Your task to perform on an android device: Go to internet settings Image 0: 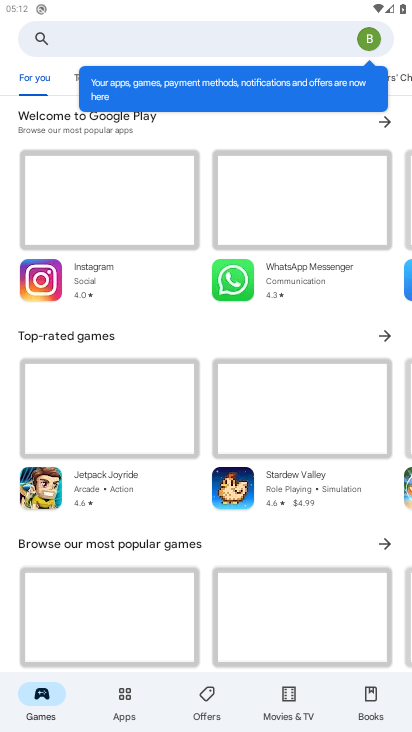
Step 0: press home button
Your task to perform on an android device: Go to internet settings Image 1: 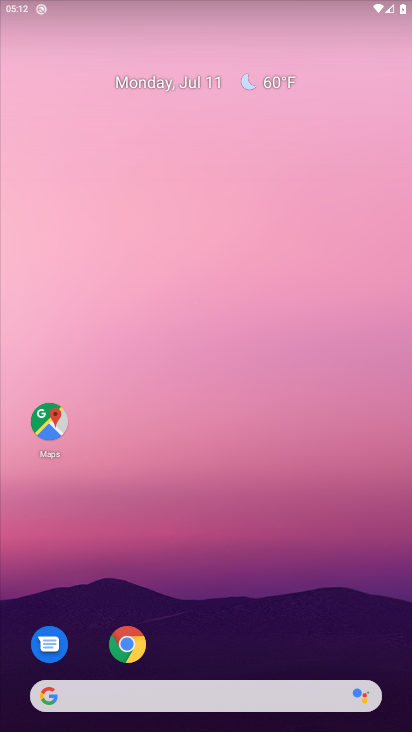
Step 1: drag from (183, 685) to (170, 229)
Your task to perform on an android device: Go to internet settings Image 2: 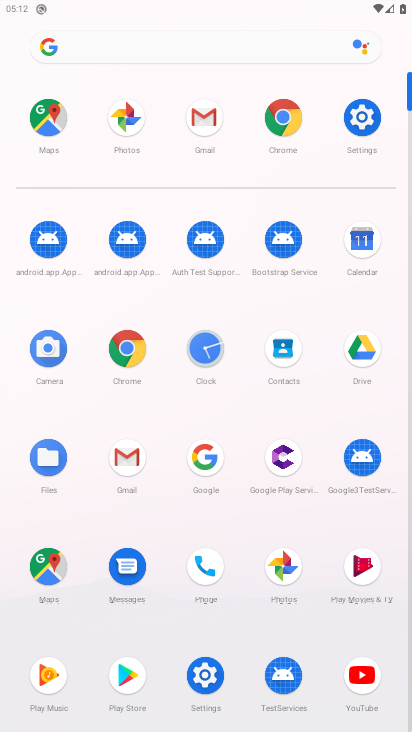
Step 2: click (368, 116)
Your task to perform on an android device: Go to internet settings Image 3: 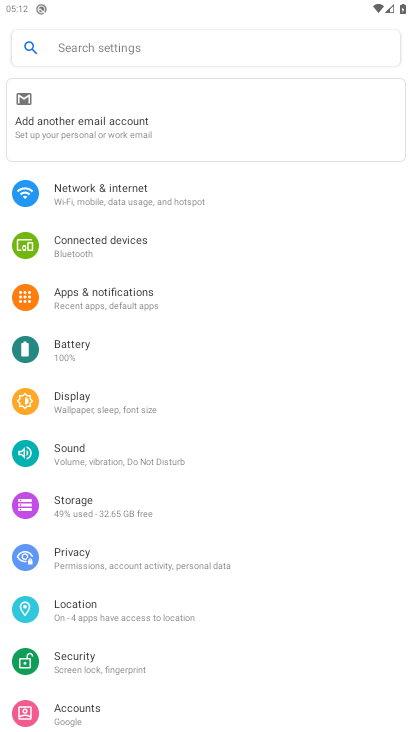
Step 3: click (119, 186)
Your task to perform on an android device: Go to internet settings Image 4: 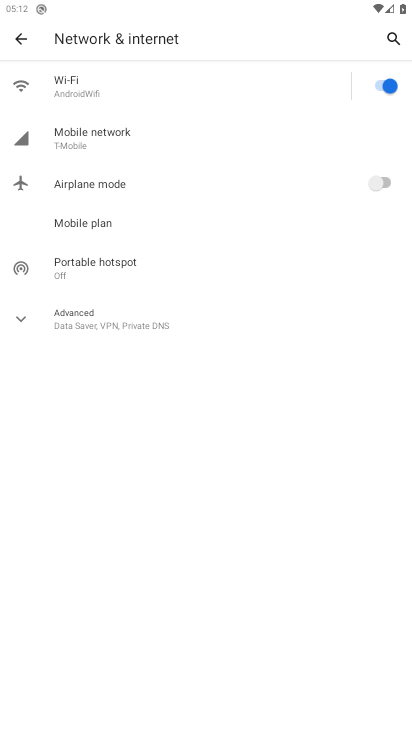
Step 4: click (83, 322)
Your task to perform on an android device: Go to internet settings Image 5: 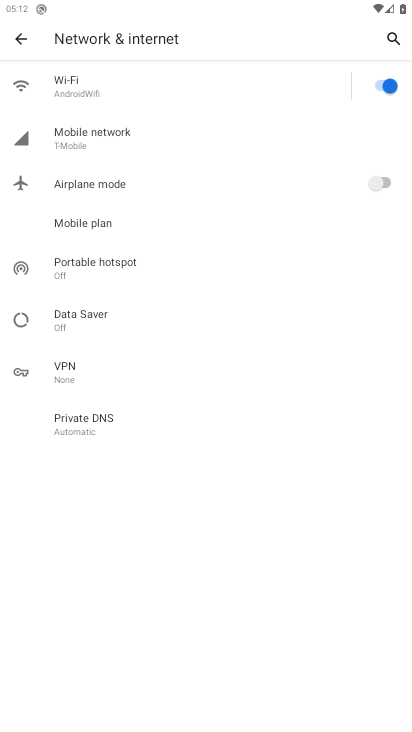
Step 5: task complete